Your task to perform on an android device: open a new tab in the chrome app Image 0: 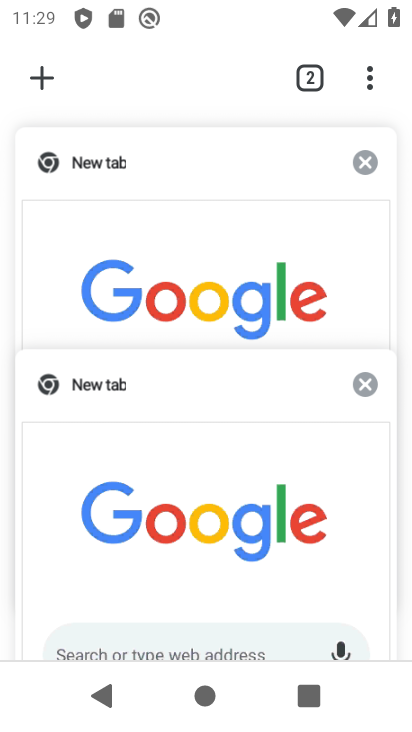
Step 0: drag from (370, 77) to (97, 89)
Your task to perform on an android device: open a new tab in the chrome app Image 1: 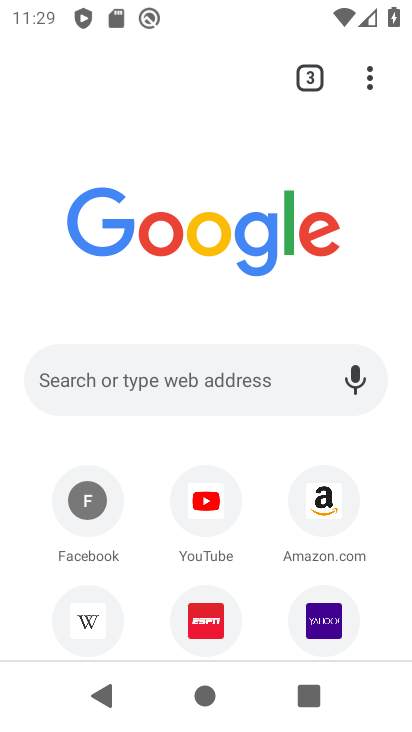
Step 1: task complete